Your task to perform on an android device: turn on the 24-hour format for clock Image 0: 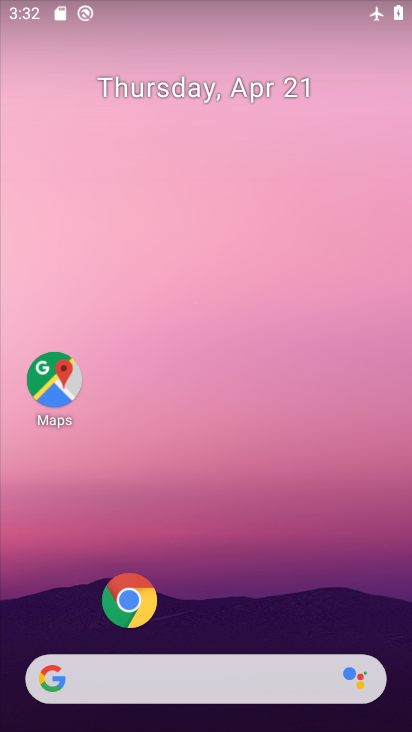
Step 0: drag from (262, 455) to (244, 99)
Your task to perform on an android device: turn on the 24-hour format for clock Image 1: 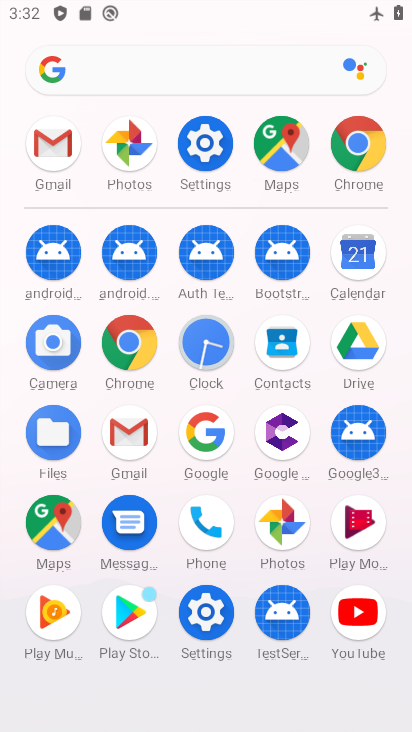
Step 1: click (201, 336)
Your task to perform on an android device: turn on the 24-hour format for clock Image 2: 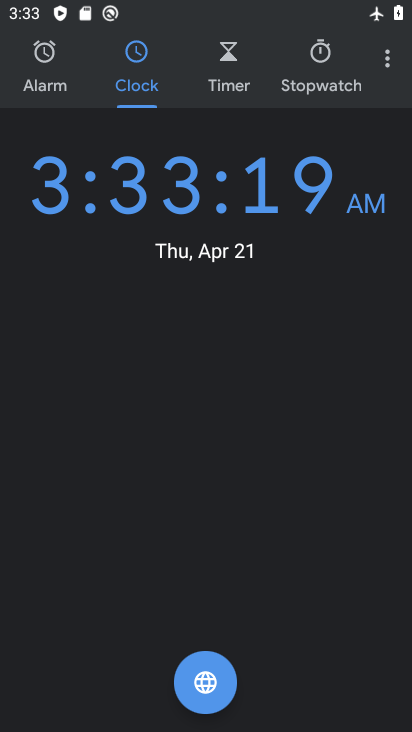
Step 2: click (385, 46)
Your task to perform on an android device: turn on the 24-hour format for clock Image 3: 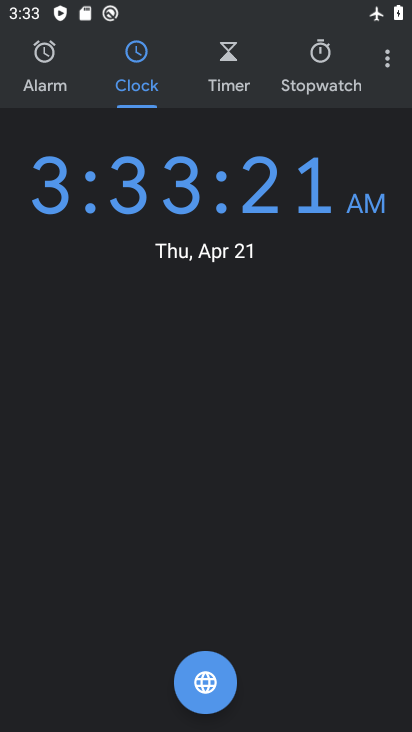
Step 3: click (387, 67)
Your task to perform on an android device: turn on the 24-hour format for clock Image 4: 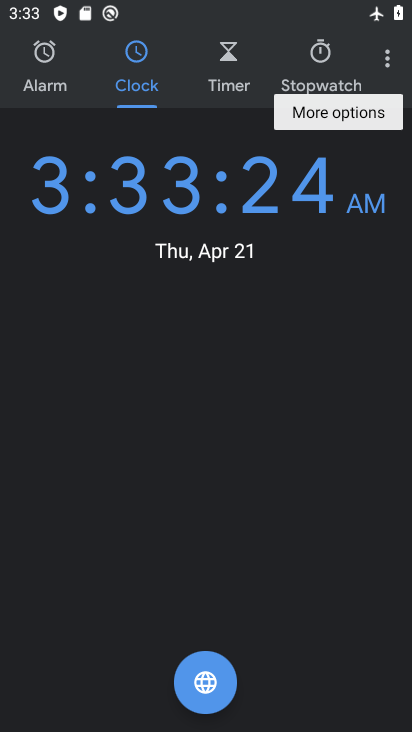
Step 4: click (389, 55)
Your task to perform on an android device: turn on the 24-hour format for clock Image 5: 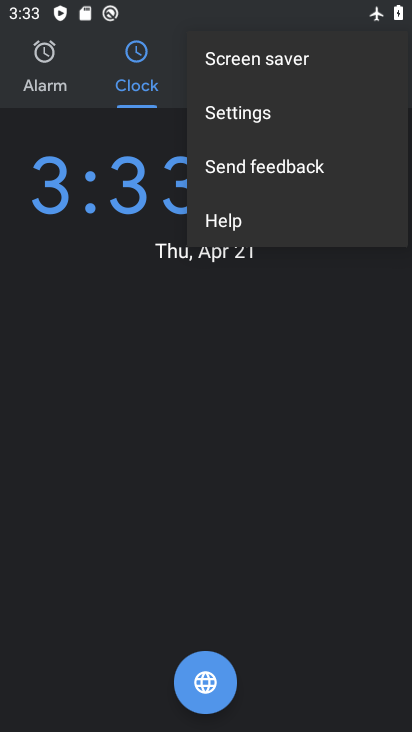
Step 5: click (277, 115)
Your task to perform on an android device: turn on the 24-hour format for clock Image 6: 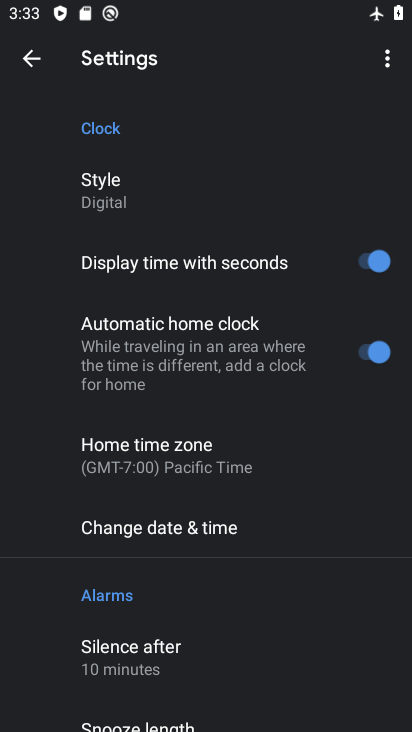
Step 6: click (163, 519)
Your task to perform on an android device: turn on the 24-hour format for clock Image 7: 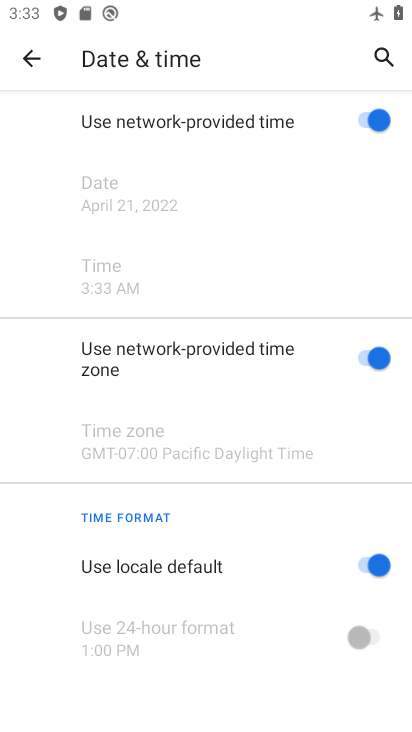
Step 7: drag from (129, 607) to (195, 335)
Your task to perform on an android device: turn on the 24-hour format for clock Image 8: 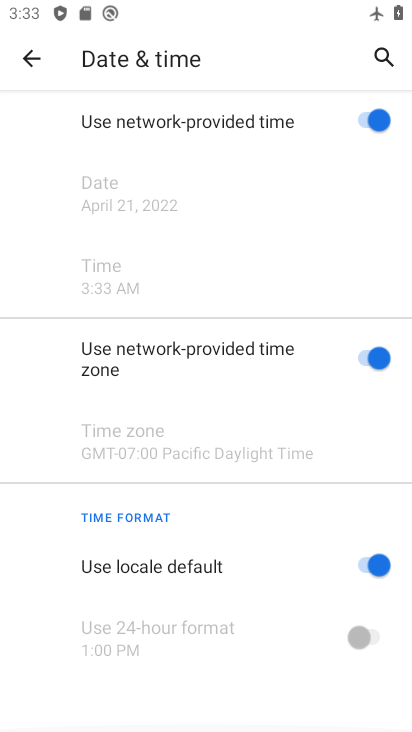
Step 8: click (376, 565)
Your task to perform on an android device: turn on the 24-hour format for clock Image 9: 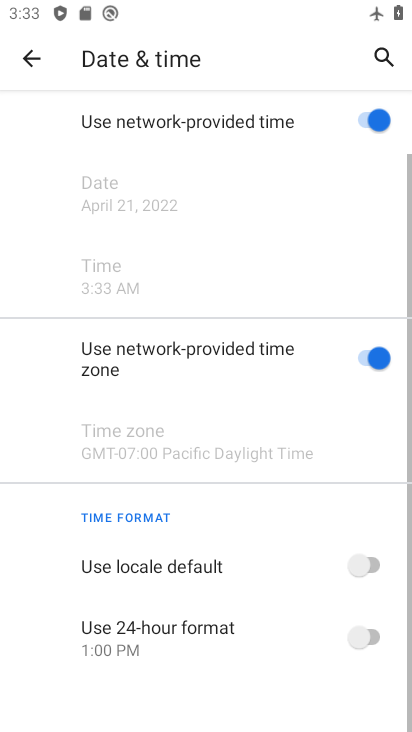
Step 9: click (358, 639)
Your task to perform on an android device: turn on the 24-hour format for clock Image 10: 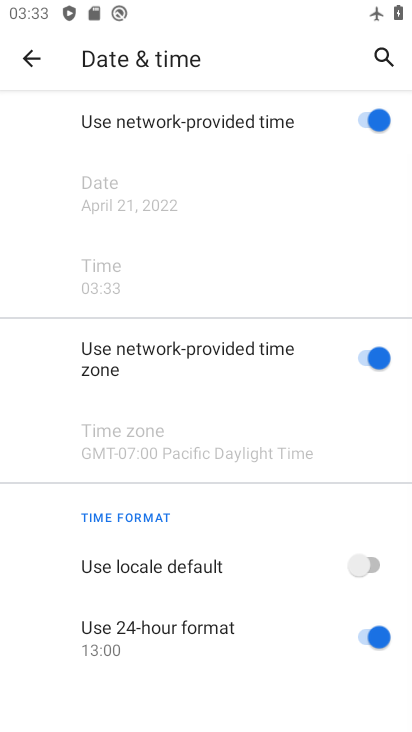
Step 10: task complete